Your task to perform on an android device: turn on notifications settings in the gmail app Image 0: 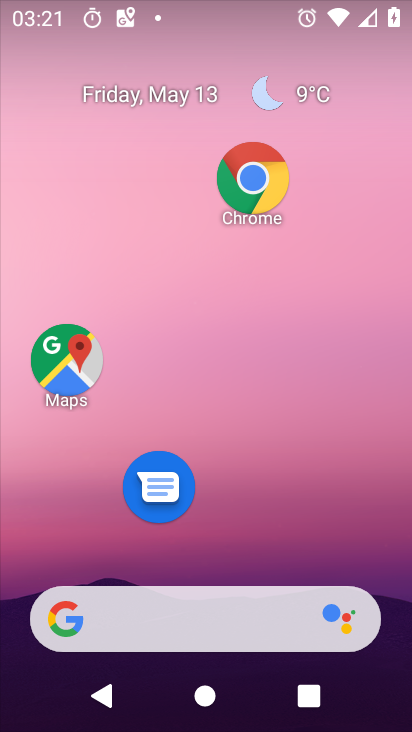
Step 0: drag from (272, 540) to (295, 148)
Your task to perform on an android device: turn on notifications settings in the gmail app Image 1: 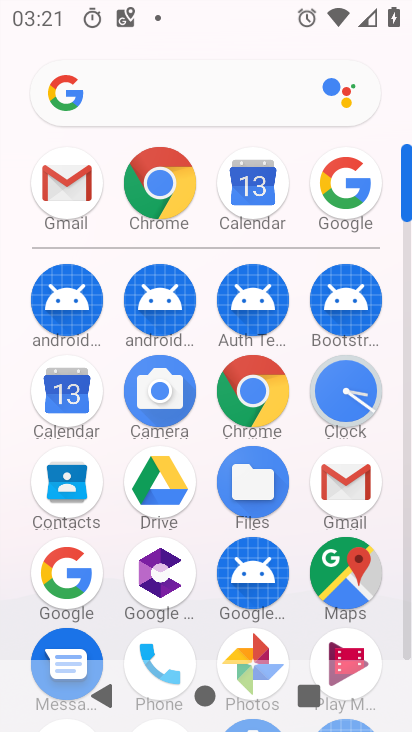
Step 1: click (58, 186)
Your task to perform on an android device: turn on notifications settings in the gmail app Image 2: 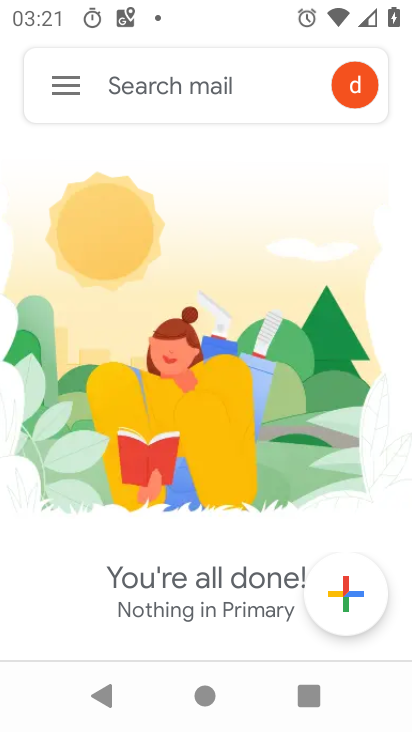
Step 2: click (55, 84)
Your task to perform on an android device: turn on notifications settings in the gmail app Image 3: 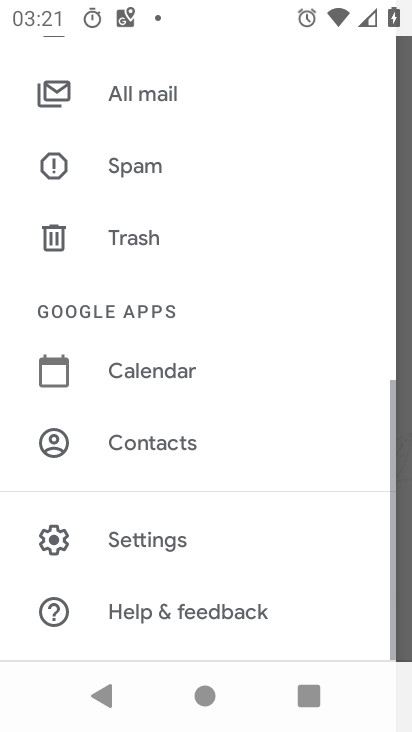
Step 3: click (173, 546)
Your task to perform on an android device: turn on notifications settings in the gmail app Image 4: 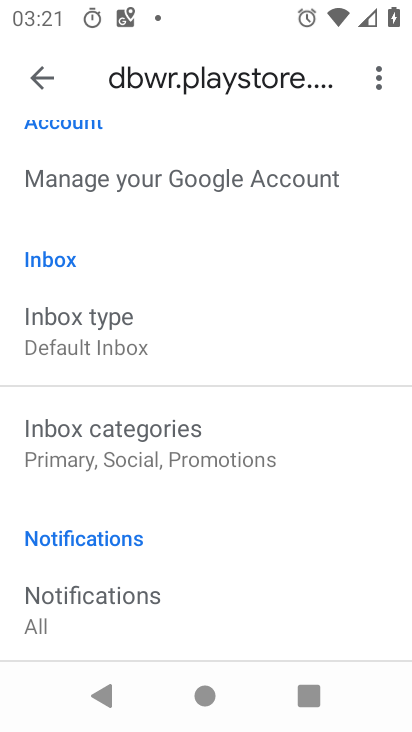
Step 4: click (103, 599)
Your task to perform on an android device: turn on notifications settings in the gmail app Image 5: 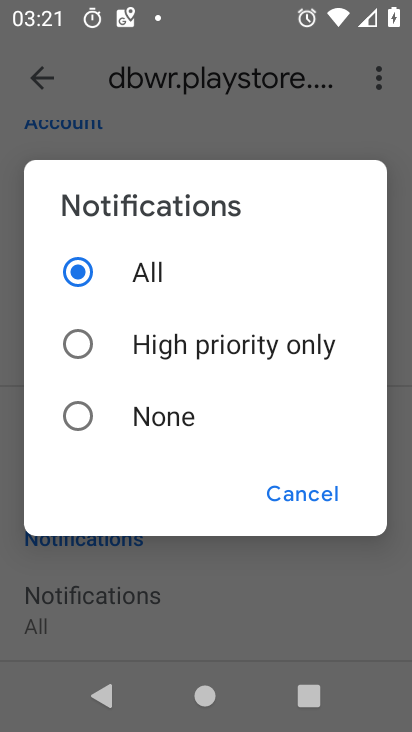
Step 5: task complete